Your task to perform on an android device: What is the recent news? Image 0: 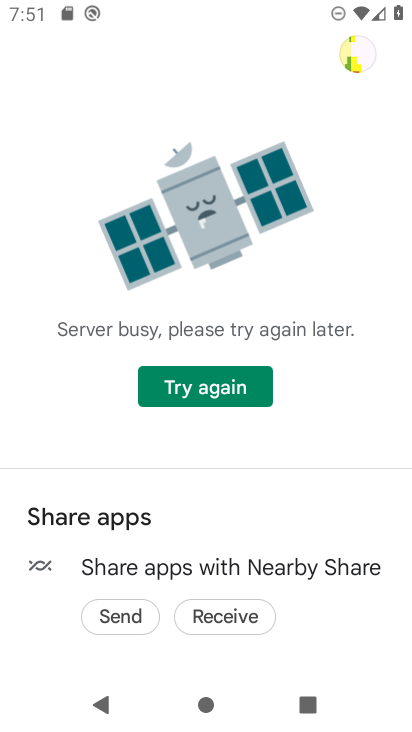
Step 0: press home button
Your task to perform on an android device: What is the recent news? Image 1: 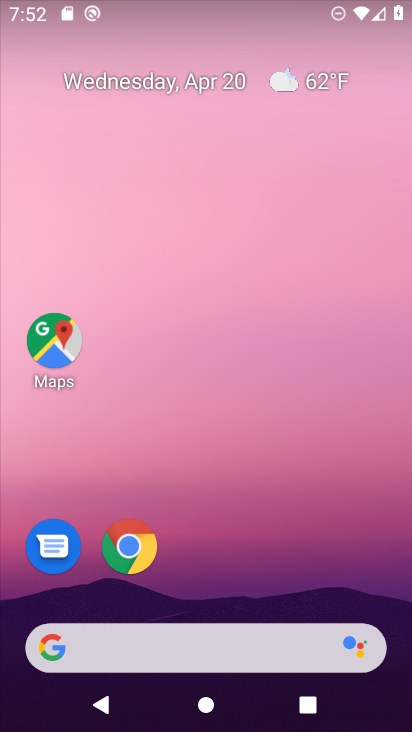
Step 1: click (53, 638)
Your task to perform on an android device: What is the recent news? Image 2: 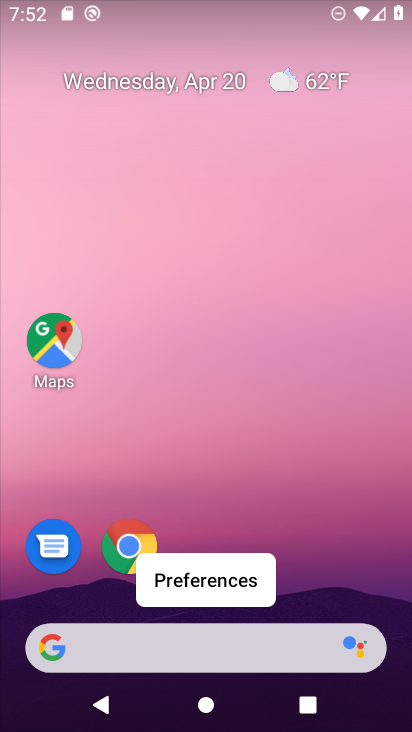
Step 2: click (53, 637)
Your task to perform on an android device: What is the recent news? Image 3: 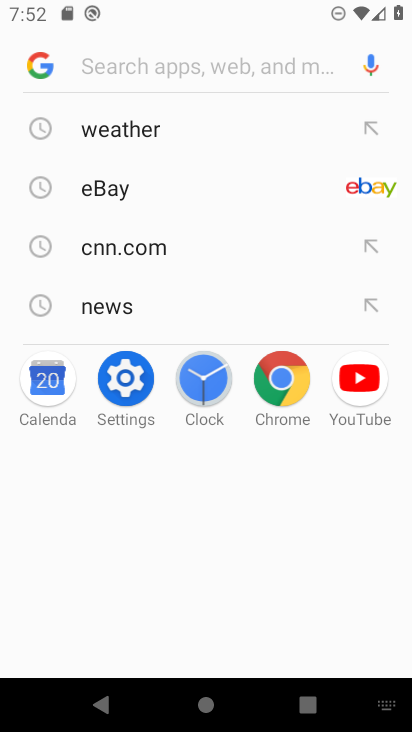
Step 3: click (37, 62)
Your task to perform on an android device: What is the recent news? Image 4: 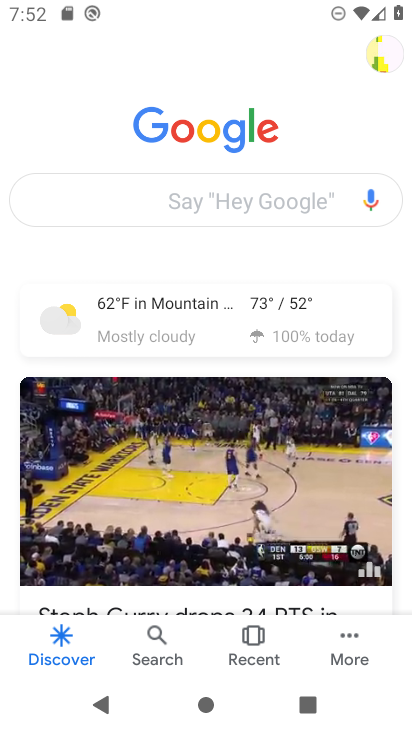
Step 4: click (183, 475)
Your task to perform on an android device: What is the recent news? Image 5: 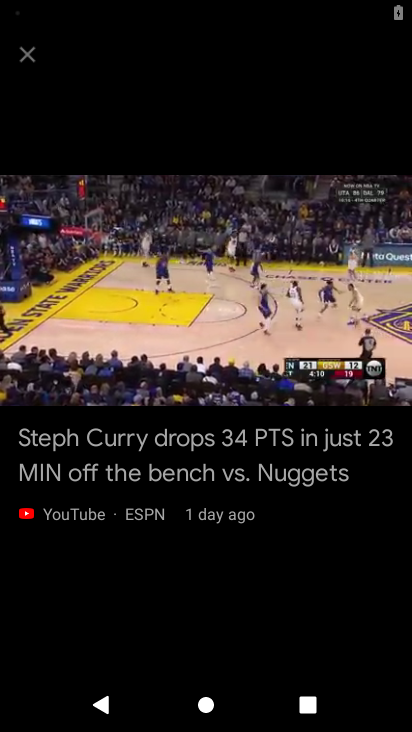
Step 5: task complete